Your task to perform on an android device: delete location history Image 0: 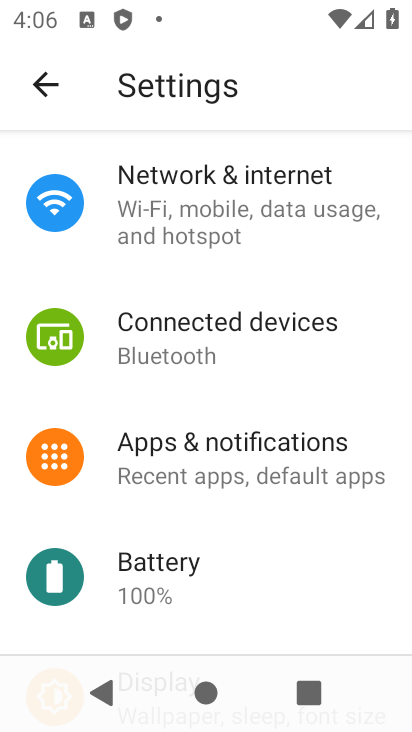
Step 0: press home button
Your task to perform on an android device: delete location history Image 1: 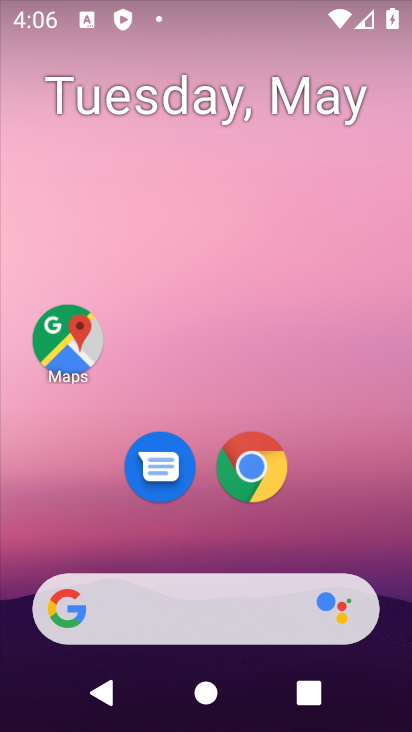
Step 1: click (71, 330)
Your task to perform on an android device: delete location history Image 2: 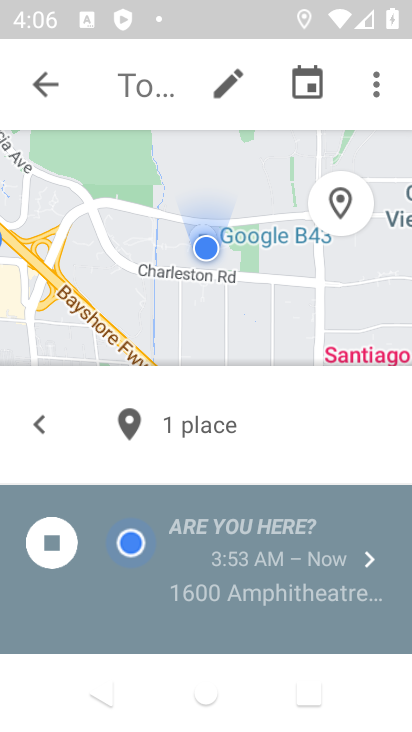
Step 2: click (376, 86)
Your task to perform on an android device: delete location history Image 3: 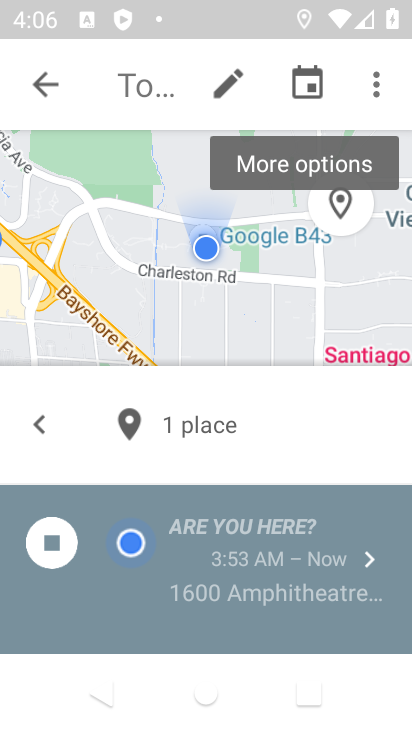
Step 3: click (375, 86)
Your task to perform on an android device: delete location history Image 4: 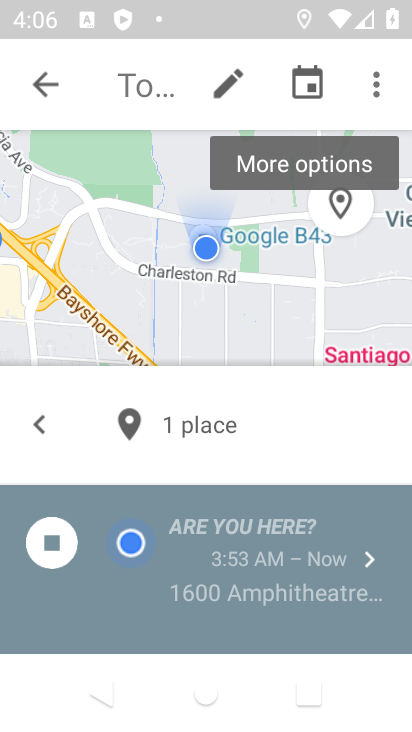
Step 4: click (375, 87)
Your task to perform on an android device: delete location history Image 5: 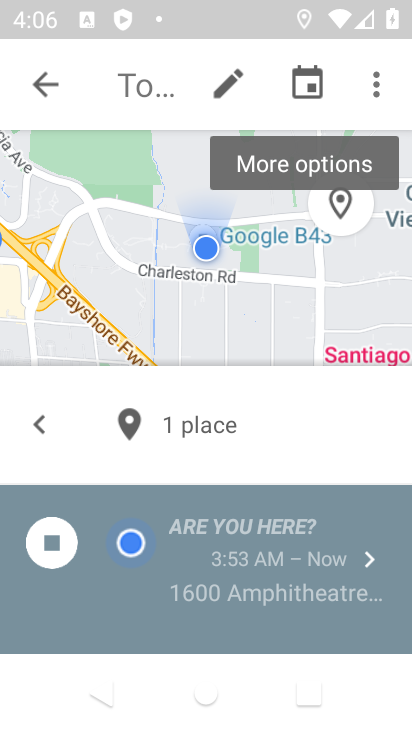
Step 5: click (310, 166)
Your task to perform on an android device: delete location history Image 6: 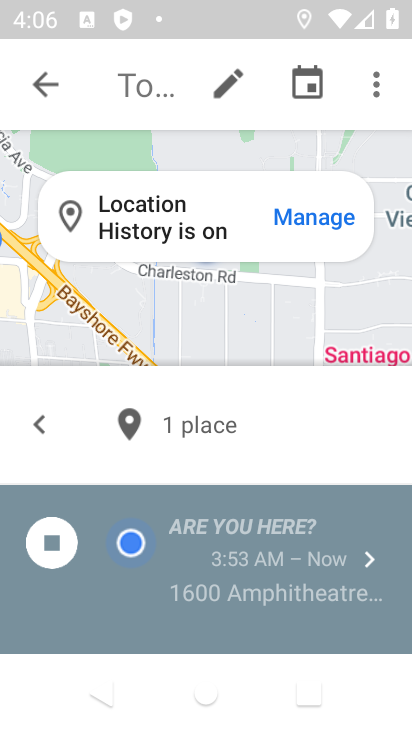
Step 6: click (325, 220)
Your task to perform on an android device: delete location history Image 7: 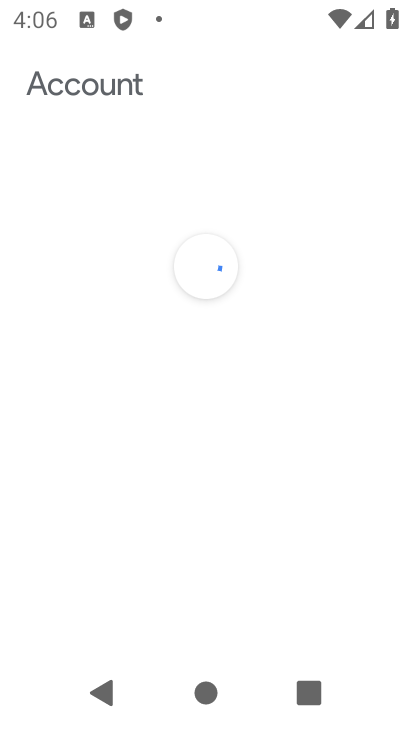
Step 7: click (371, 78)
Your task to perform on an android device: delete location history Image 8: 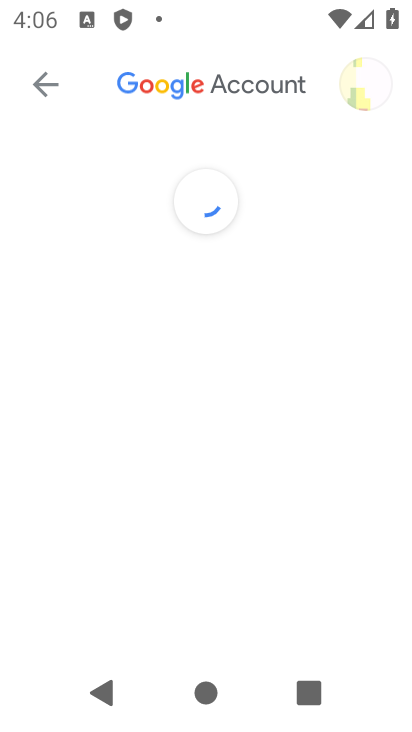
Step 8: click (211, 358)
Your task to perform on an android device: delete location history Image 9: 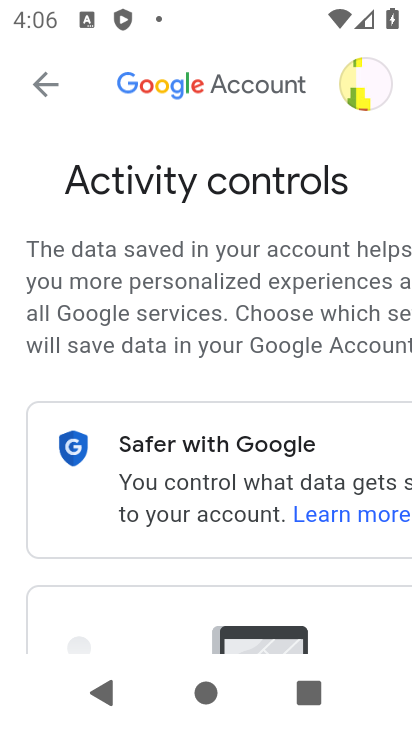
Step 9: drag from (257, 531) to (291, 127)
Your task to perform on an android device: delete location history Image 10: 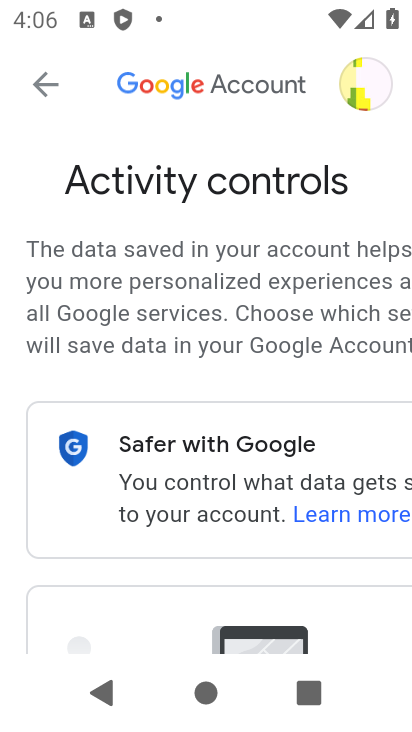
Step 10: drag from (221, 572) to (207, 91)
Your task to perform on an android device: delete location history Image 11: 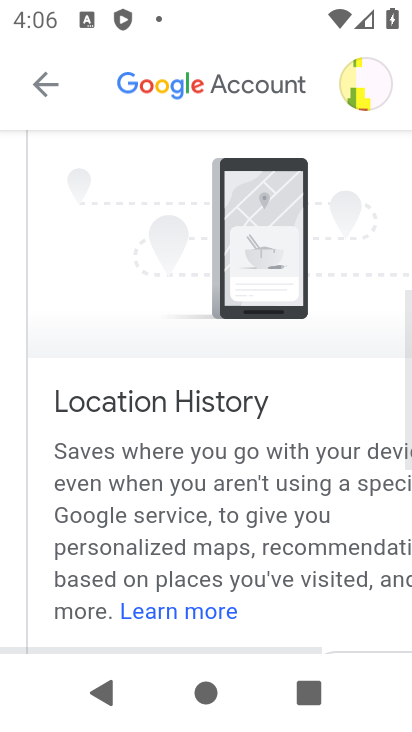
Step 11: drag from (279, 553) to (262, 232)
Your task to perform on an android device: delete location history Image 12: 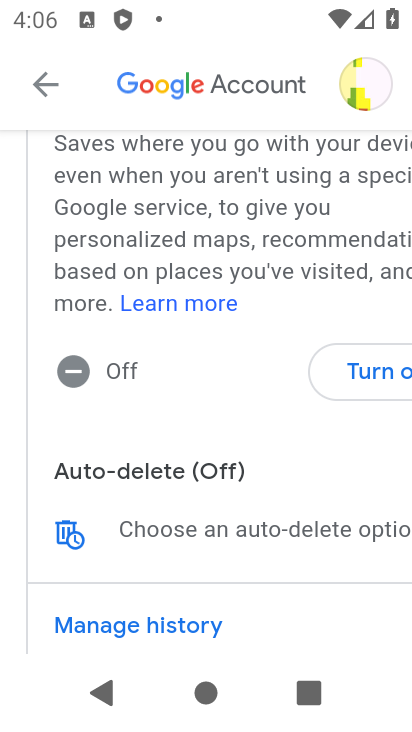
Step 12: click (73, 531)
Your task to perform on an android device: delete location history Image 13: 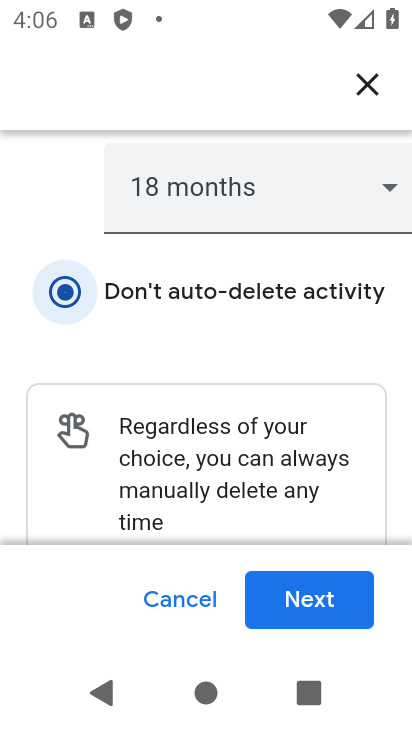
Step 13: click (390, 180)
Your task to perform on an android device: delete location history Image 14: 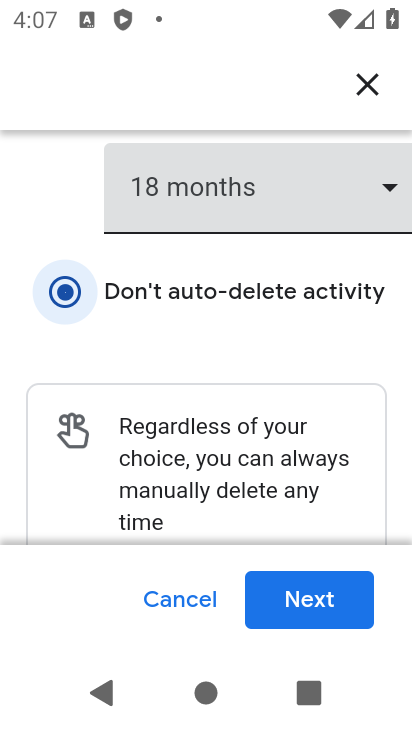
Step 14: drag from (68, 207) to (184, 227)
Your task to perform on an android device: delete location history Image 15: 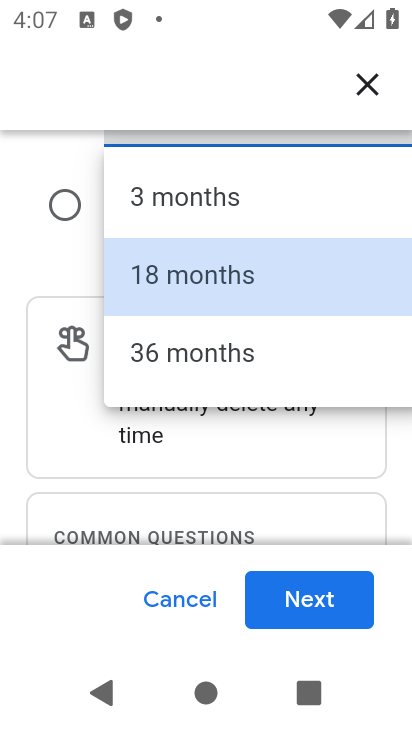
Step 15: click (280, 600)
Your task to perform on an android device: delete location history Image 16: 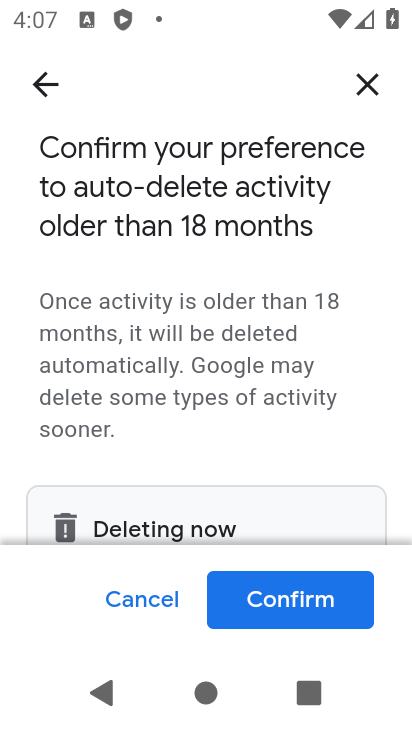
Step 16: drag from (356, 475) to (356, 333)
Your task to perform on an android device: delete location history Image 17: 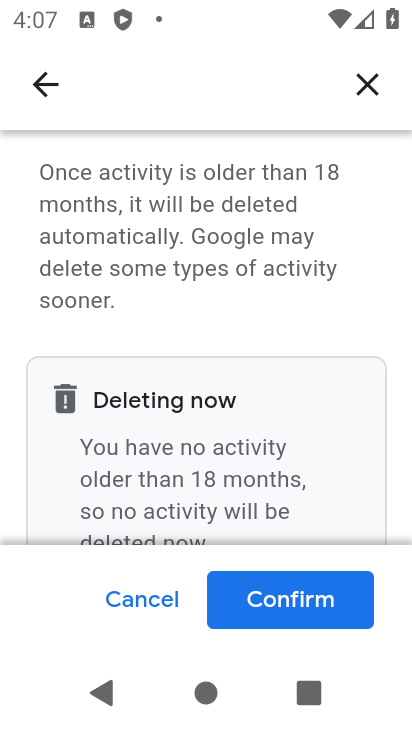
Step 17: click (151, 398)
Your task to perform on an android device: delete location history Image 18: 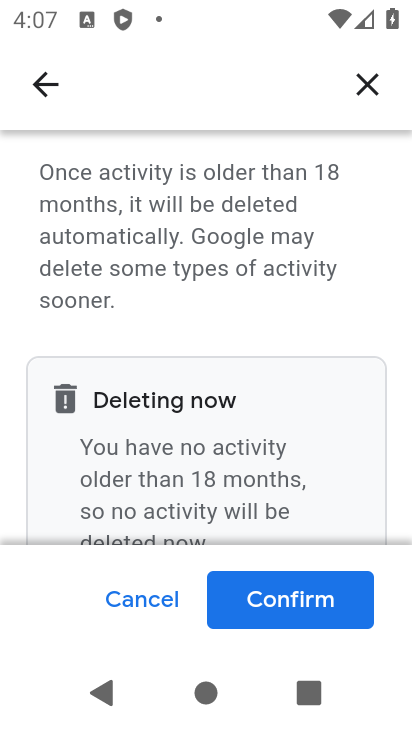
Step 18: click (67, 397)
Your task to perform on an android device: delete location history Image 19: 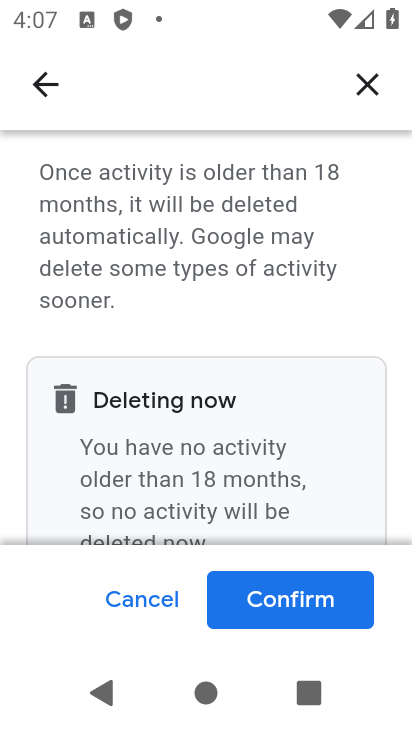
Step 19: click (310, 597)
Your task to perform on an android device: delete location history Image 20: 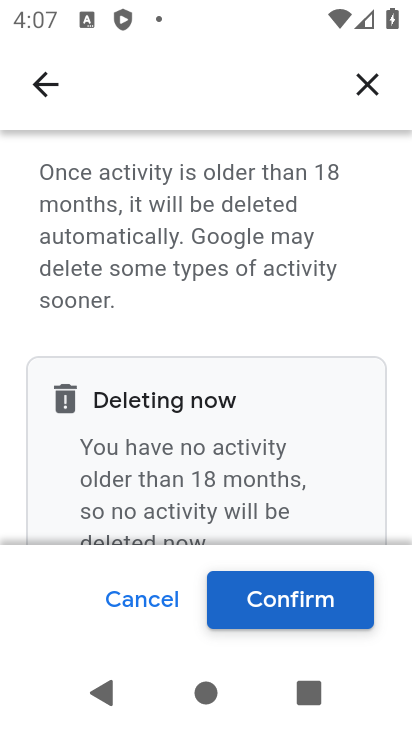
Step 20: click (299, 597)
Your task to perform on an android device: delete location history Image 21: 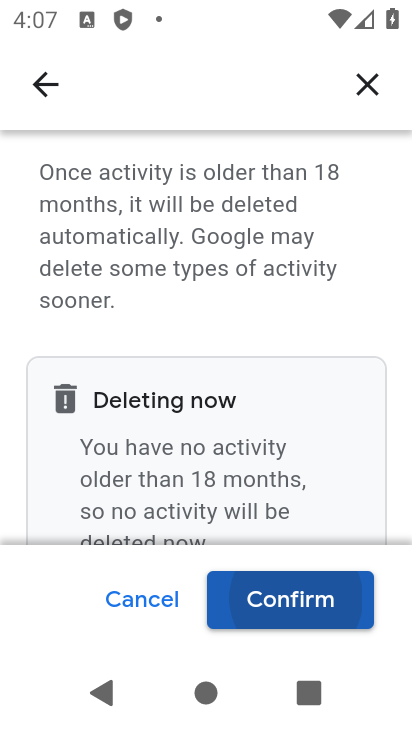
Step 21: click (299, 597)
Your task to perform on an android device: delete location history Image 22: 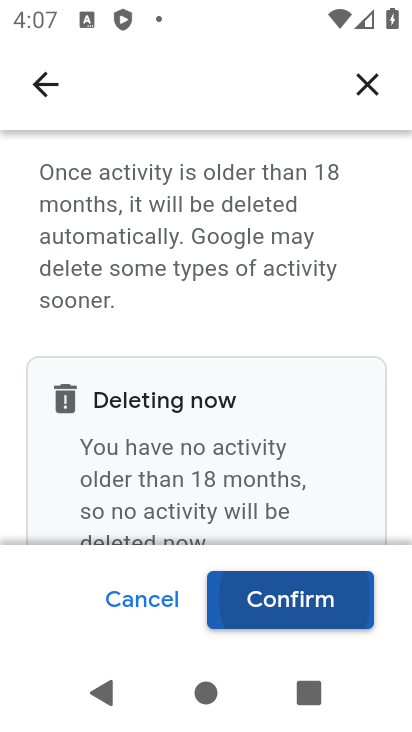
Step 22: click (299, 597)
Your task to perform on an android device: delete location history Image 23: 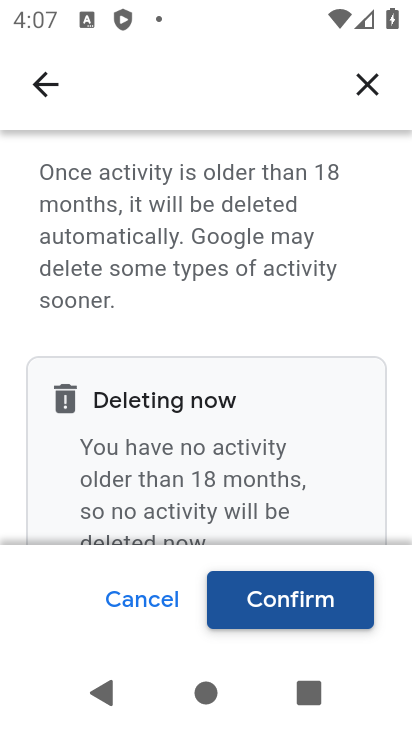
Step 23: click (300, 598)
Your task to perform on an android device: delete location history Image 24: 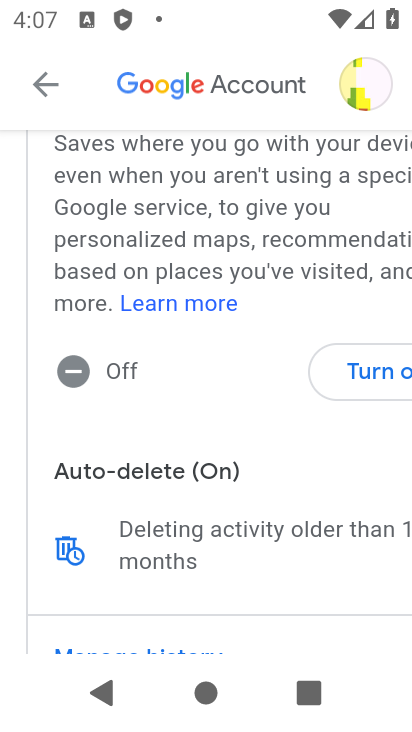
Step 24: task complete